Your task to perform on an android device: Search for hotels in Seattle Image 0: 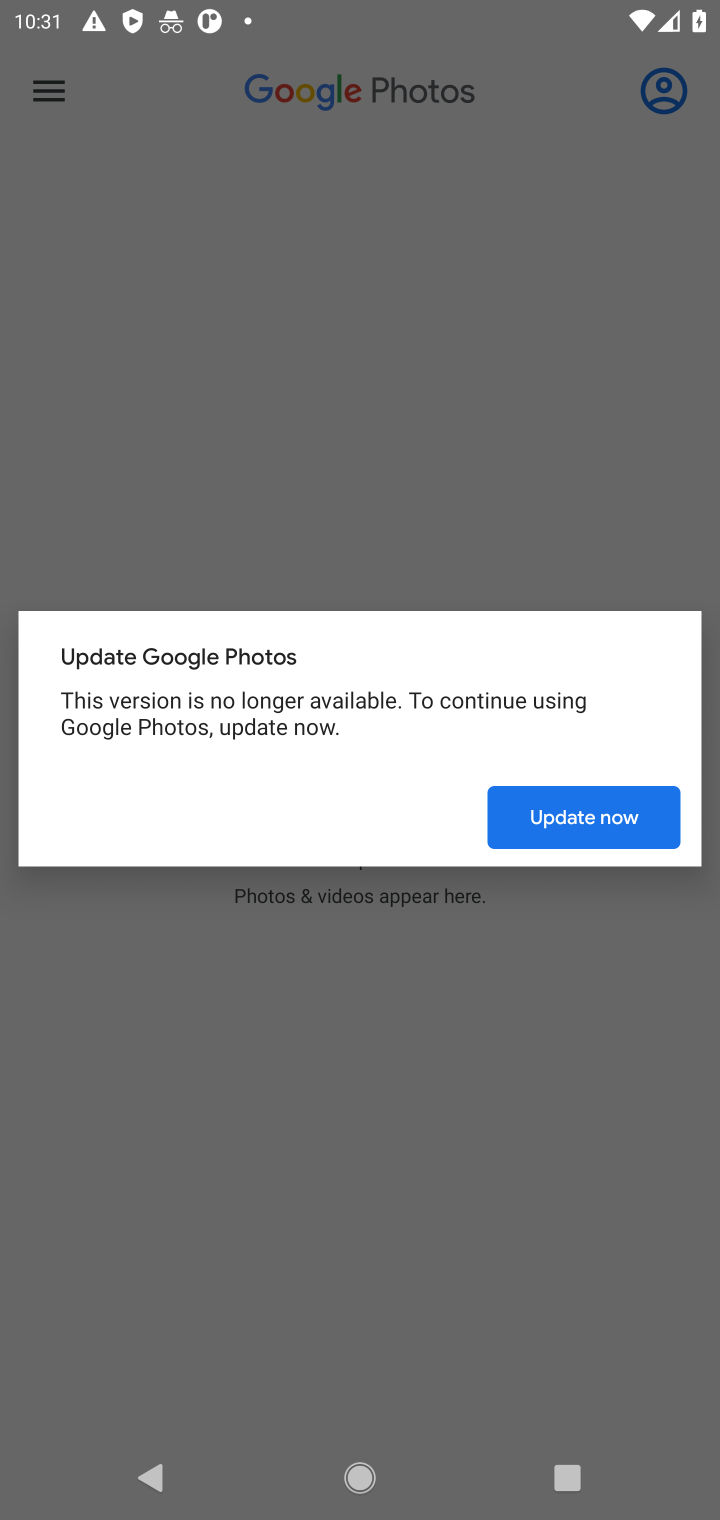
Step 0: press home button
Your task to perform on an android device: Search for hotels in Seattle Image 1: 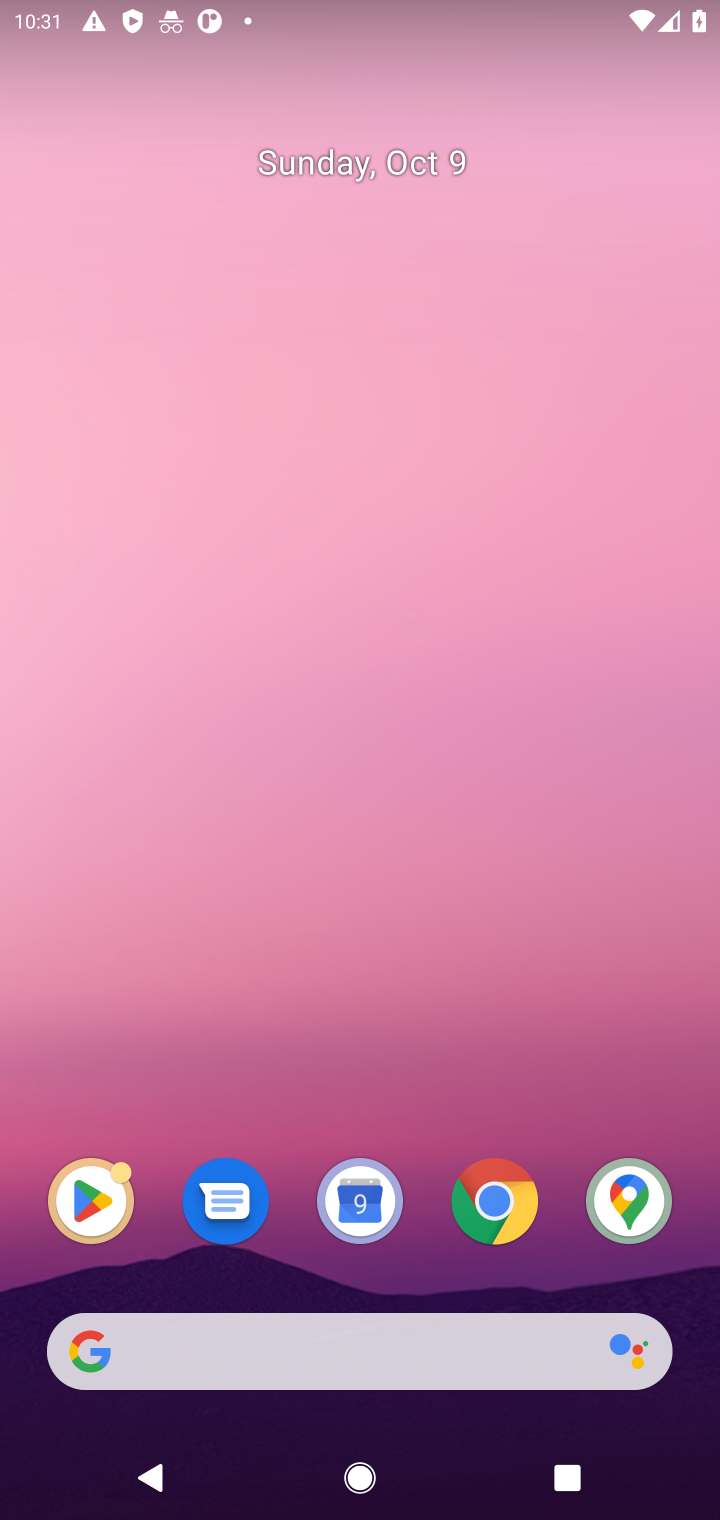
Step 1: click (482, 1210)
Your task to perform on an android device: Search for hotels in Seattle Image 2: 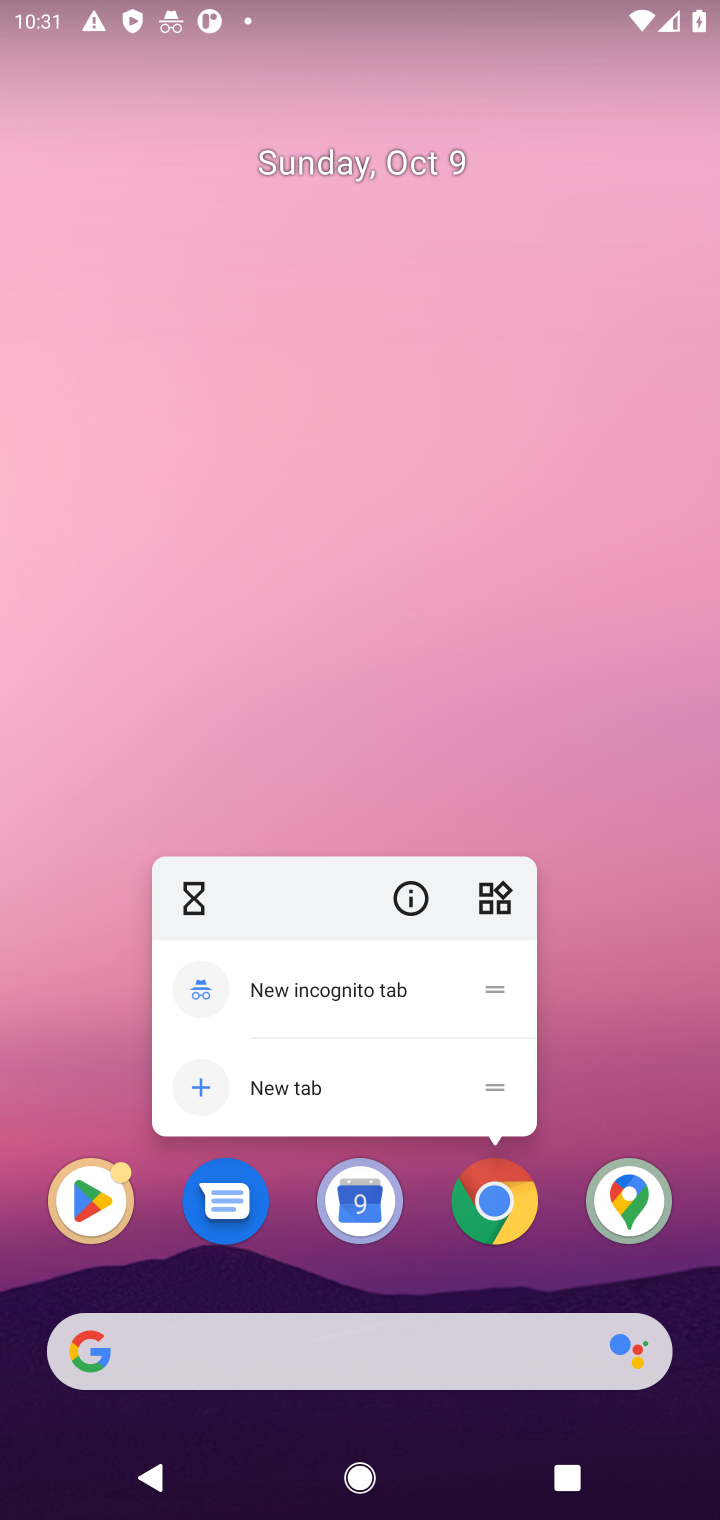
Step 2: click (482, 1210)
Your task to perform on an android device: Search for hotels in Seattle Image 3: 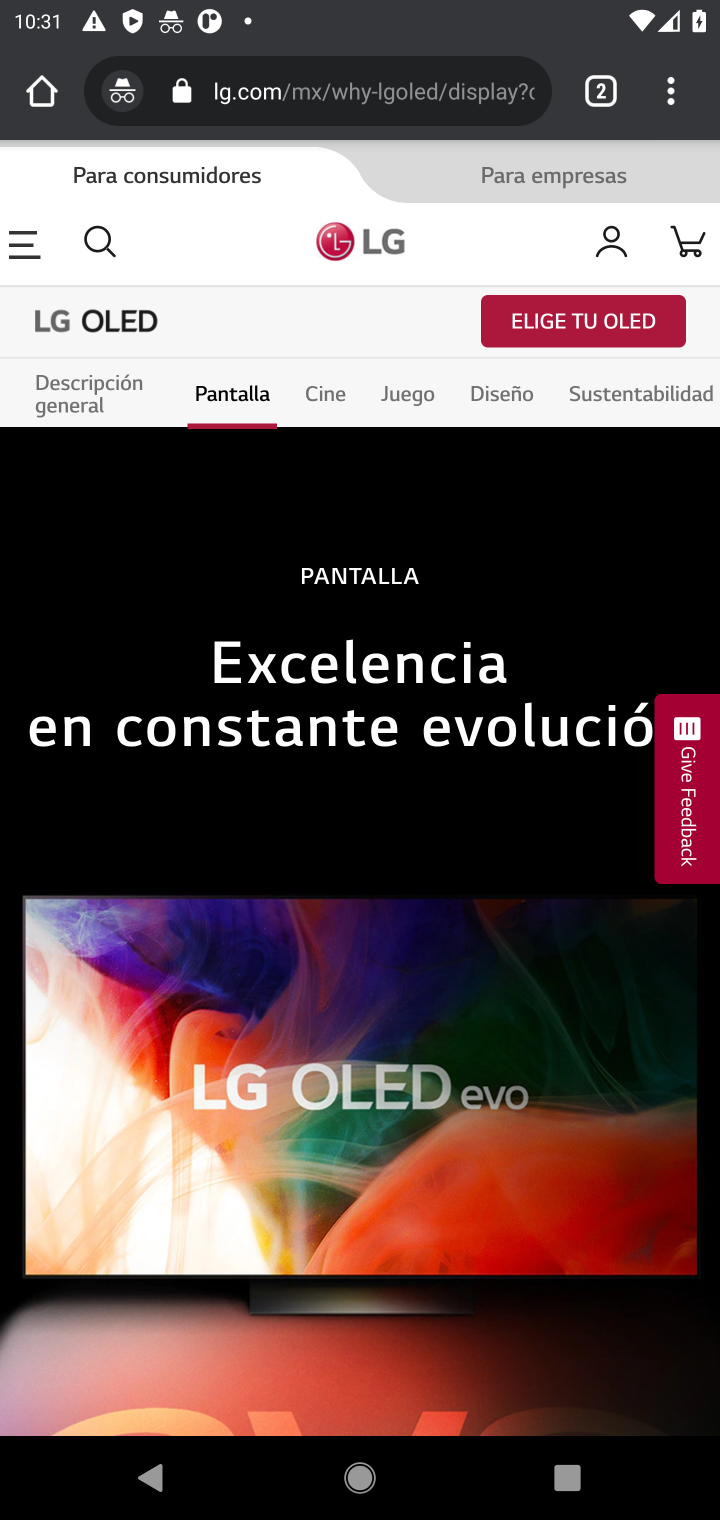
Step 3: click (324, 72)
Your task to perform on an android device: Search for hotels in Seattle Image 4: 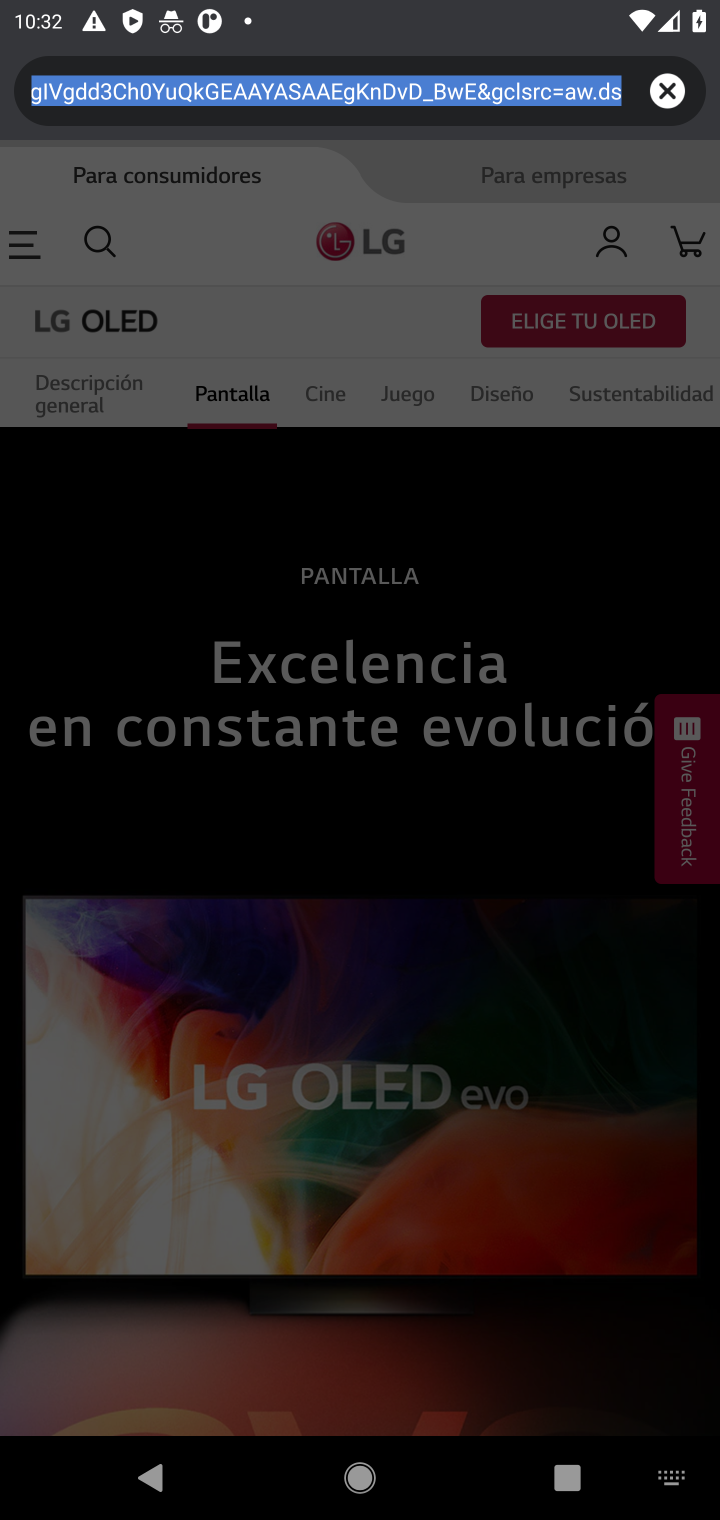
Step 4: type "hotels in Seattle"
Your task to perform on an android device: Search for hotels in Seattle Image 5: 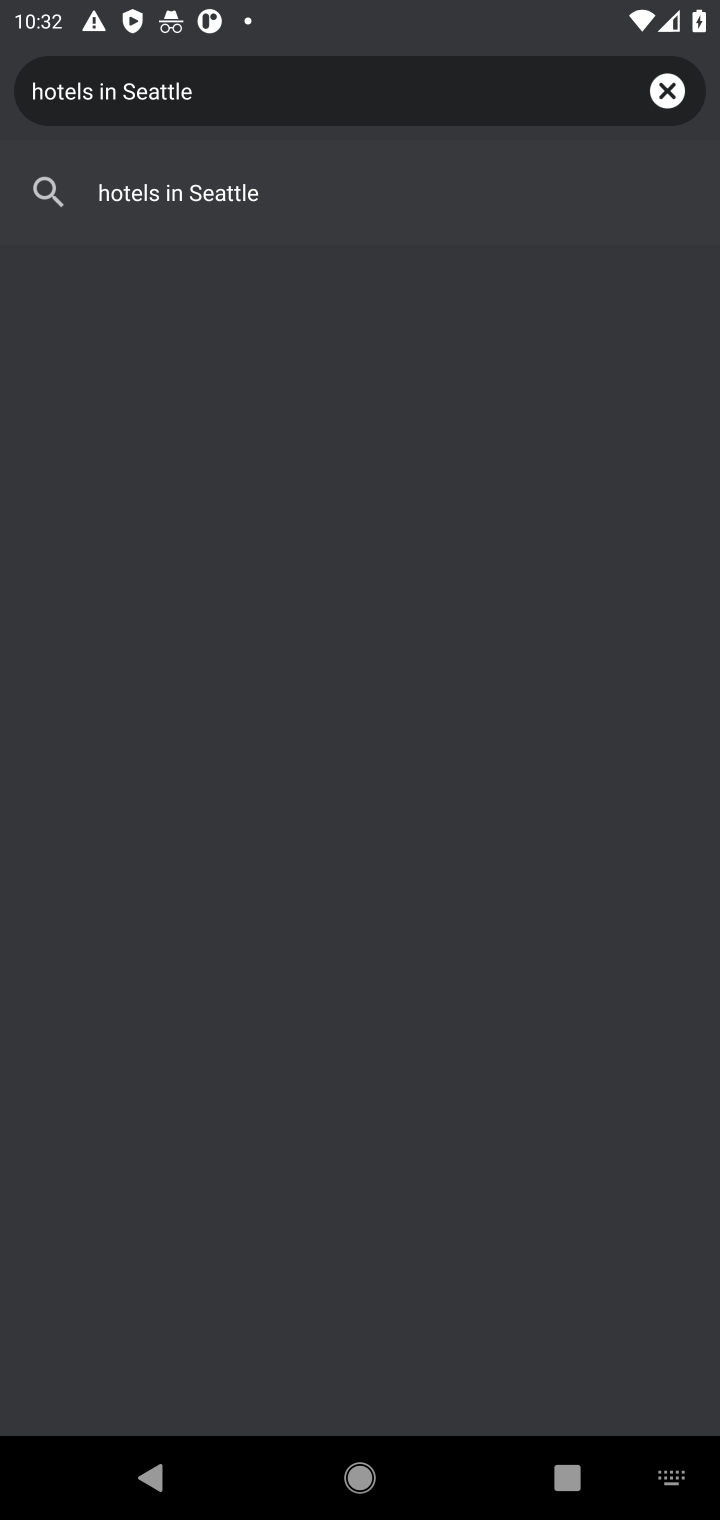
Step 5: click (267, 205)
Your task to perform on an android device: Search for hotels in Seattle Image 6: 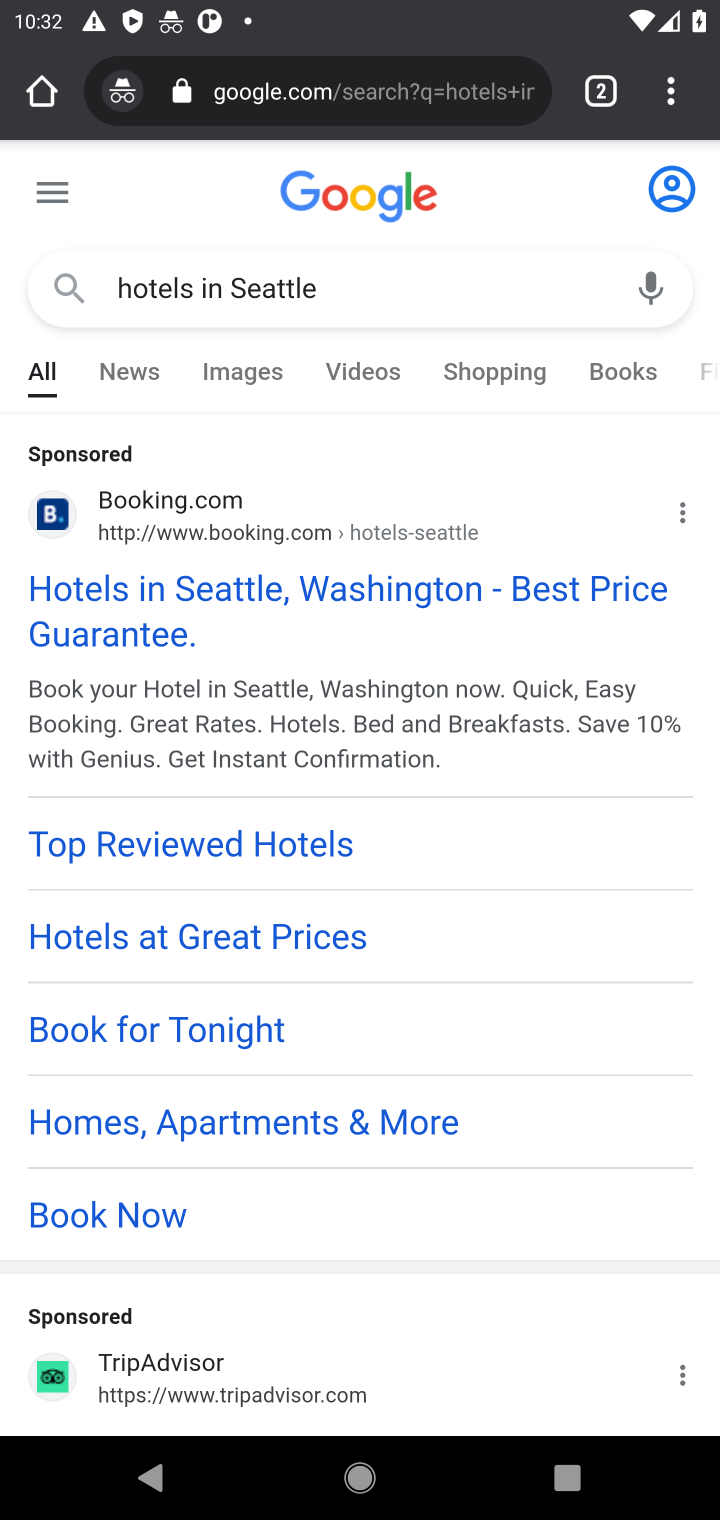
Step 6: click (509, 620)
Your task to perform on an android device: Search for hotels in Seattle Image 7: 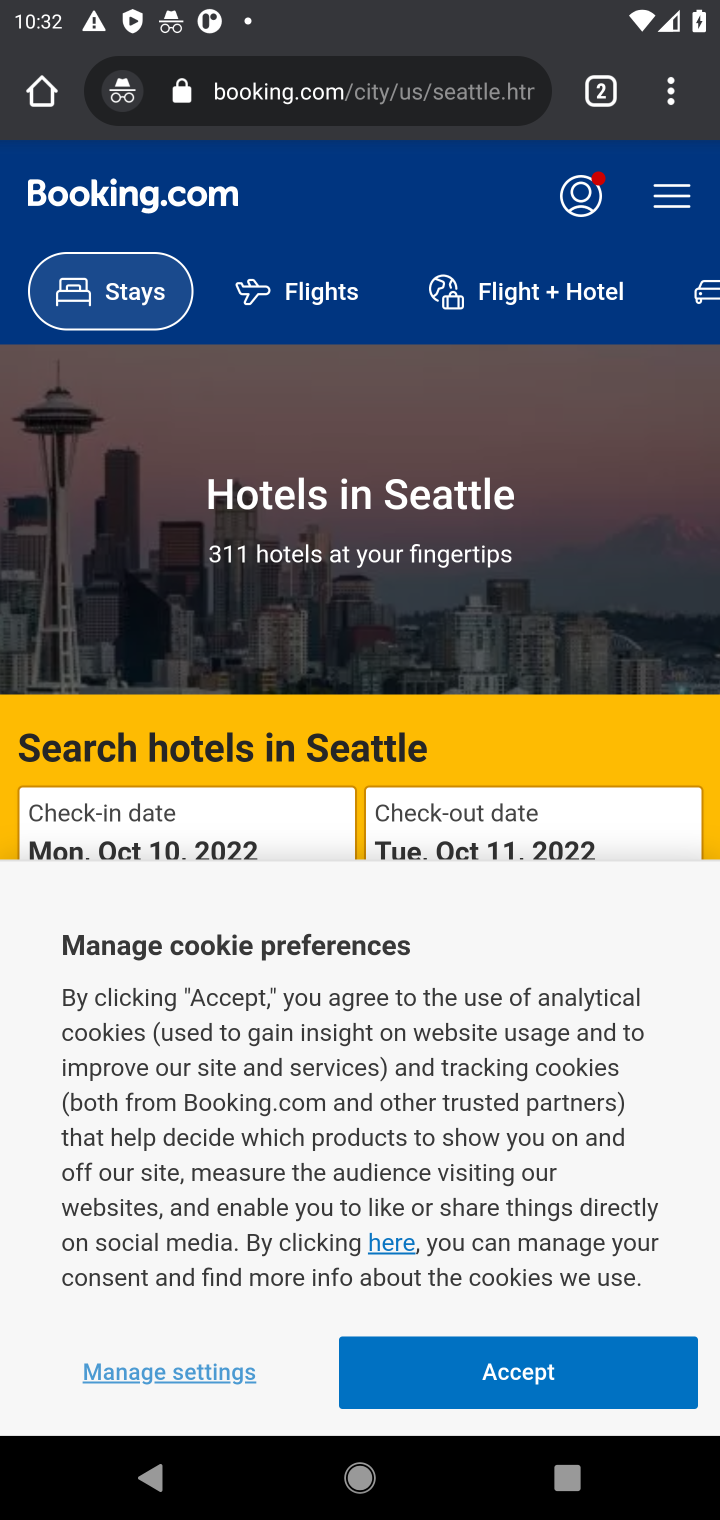
Step 7: click (512, 1387)
Your task to perform on an android device: Search for hotels in Seattle Image 8: 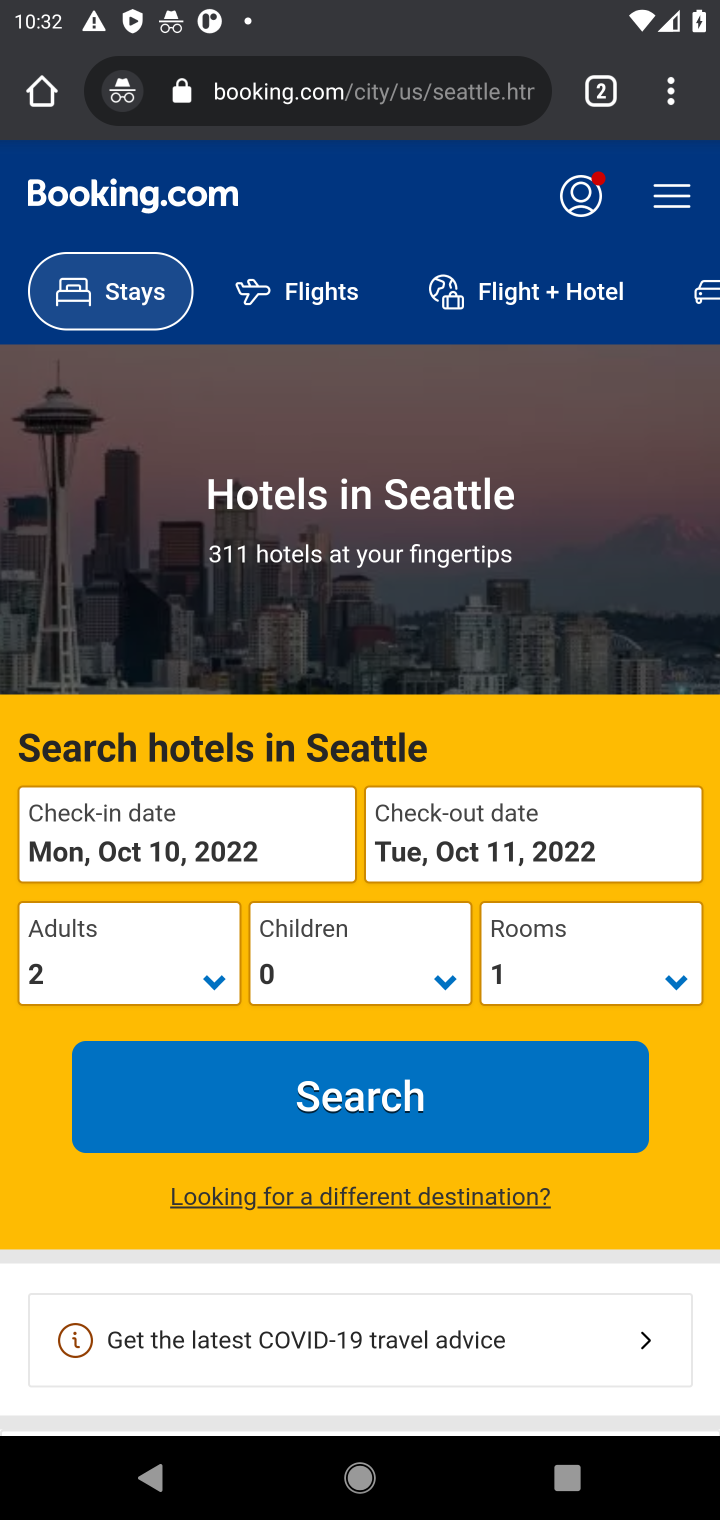
Step 8: task complete